Your task to perform on an android device: Open Wikipedia Image 0: 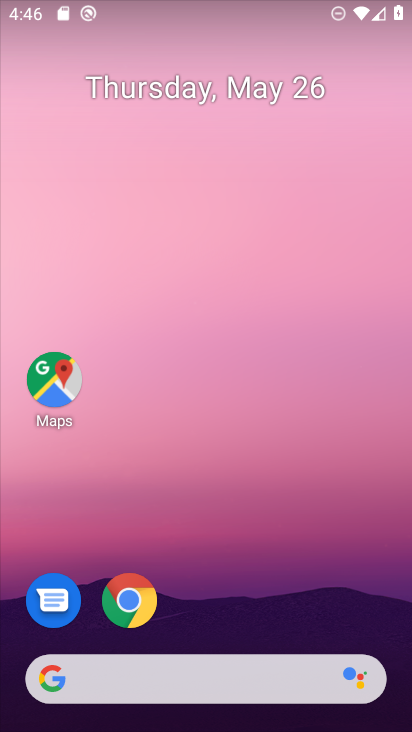
Step 0: click (139, 601)
Your task to perform on an android device: Open Wikipedia Image 1: 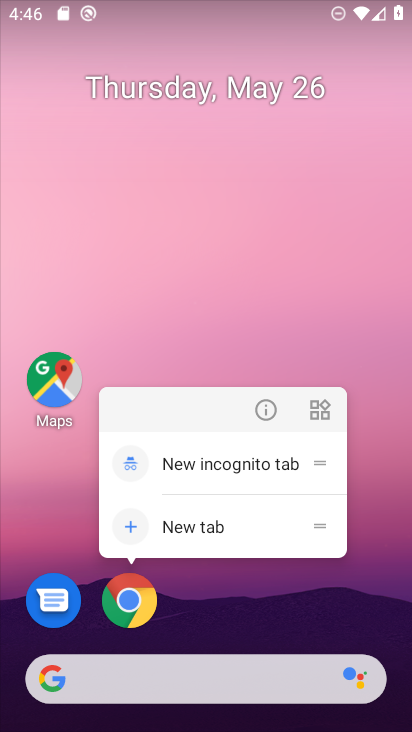
Step 1: click (130, 598)
Your task to perform on an android device: Open Wikipedia Image 2: 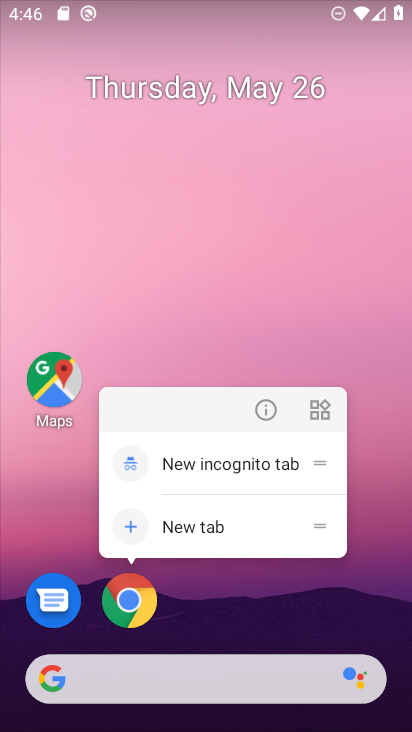
Step 2: click (130, 598)
Your task to perform on an android device: Open Wikipedia Image 3: 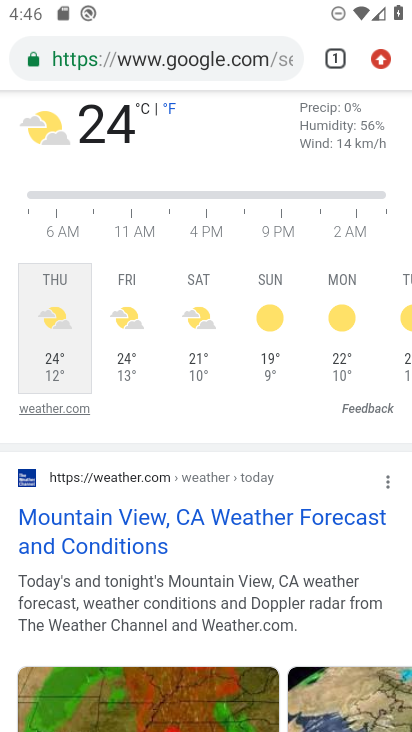
Step 3: drag from (202, 121) to (204, 446)
Your task to perform on an android device: Open Wikipedia Image 4: 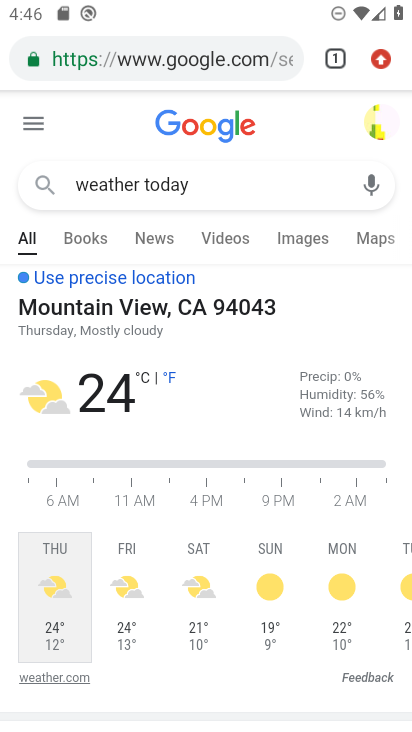
Step 4: click (207, 187)
Your task to perform on an android device: Open Wikipedia Image 5: 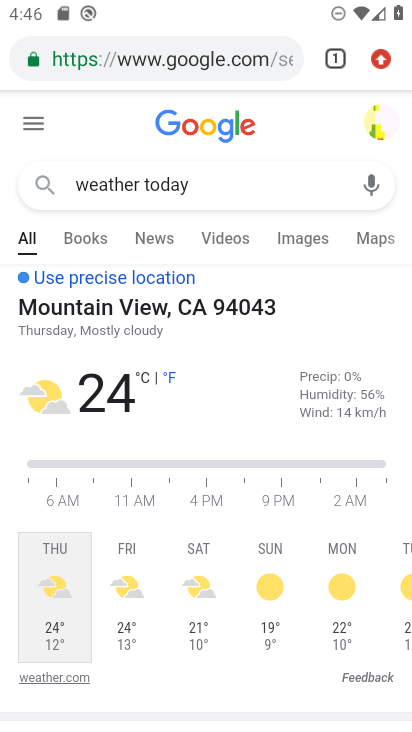
Step 5: click (197, 38)
Your task to perform on an android device: Open Wikipedia Image 6: 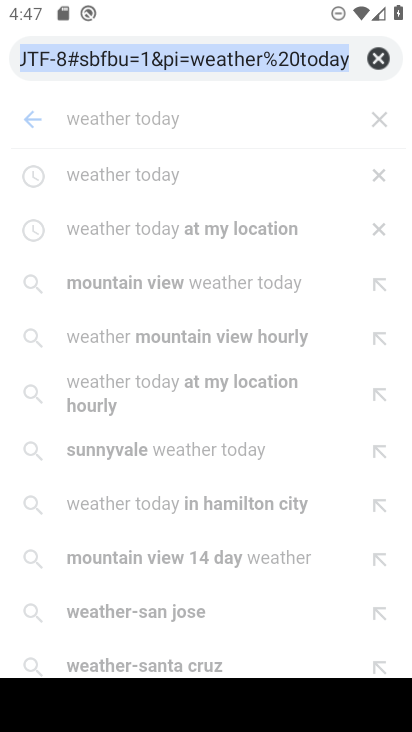
Step 6: type "wikipedia"
Your task to perform on an android device: Open Wikipedia Image 7: 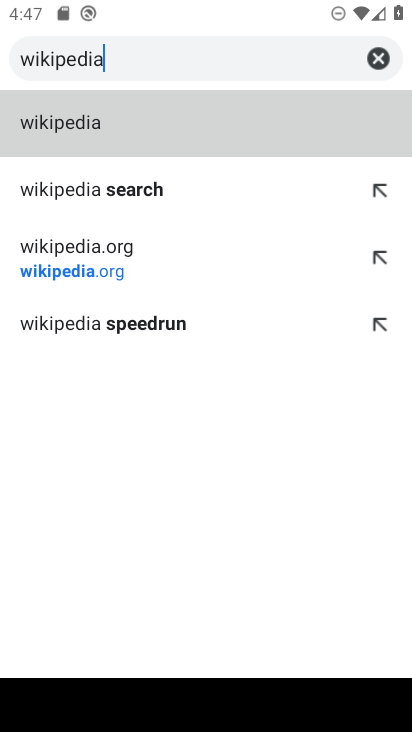
Step 7: click (149, 118)
Your task to perform on an android device: Open Wikipedia Image 8: 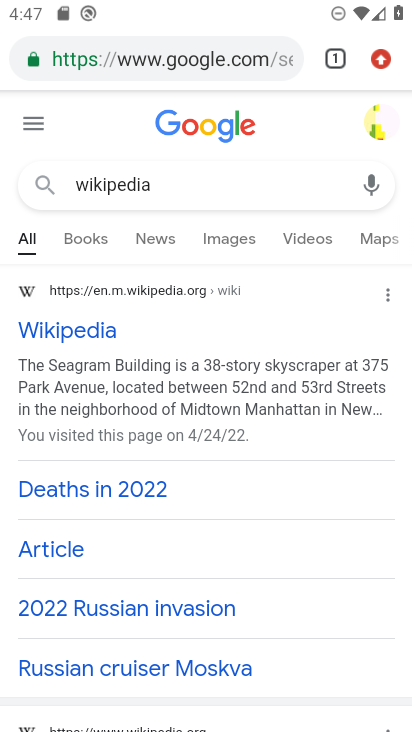
Step 8: task complete